Your task to perform on an android device: turn on airplane mode Image 0: 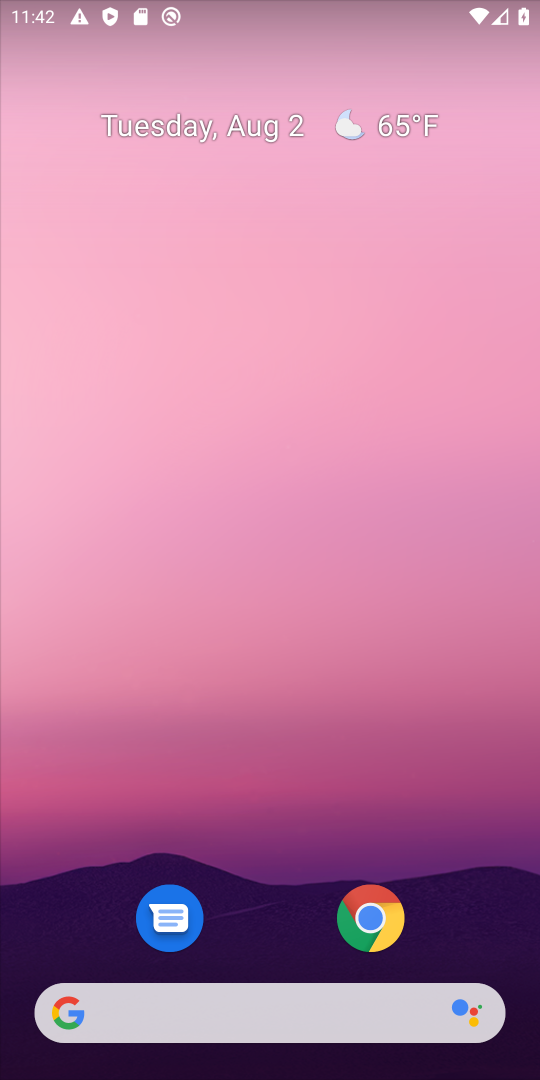
Step 0: drag from (467, 322) to (438, 35)
Your task to perform on an android device: turn on airplane mode Image 1: 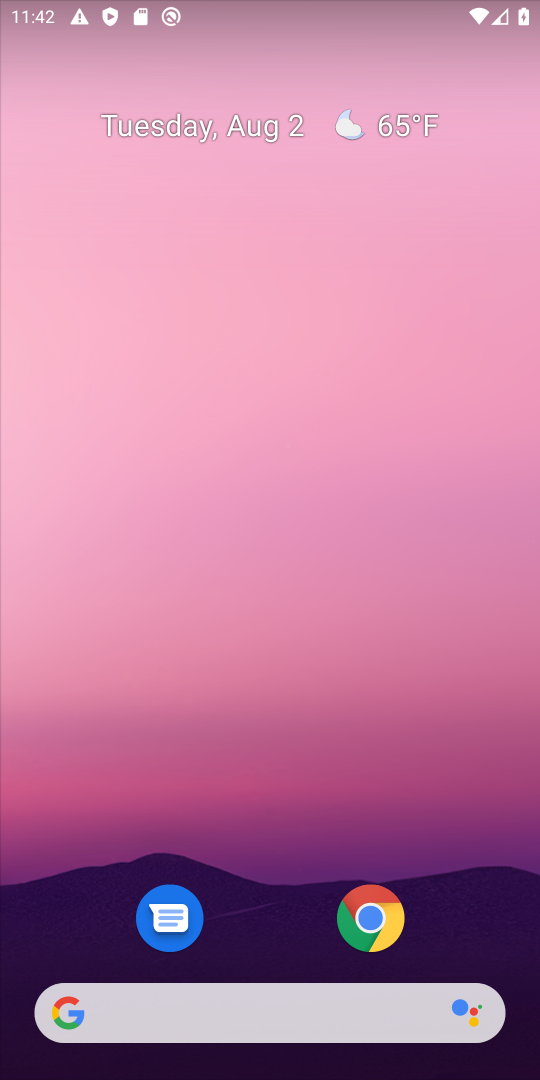
Step 1: drag from (238, 854) to (343, 64)
Your task to perform on an android device: turn on airplane mode Image 2: 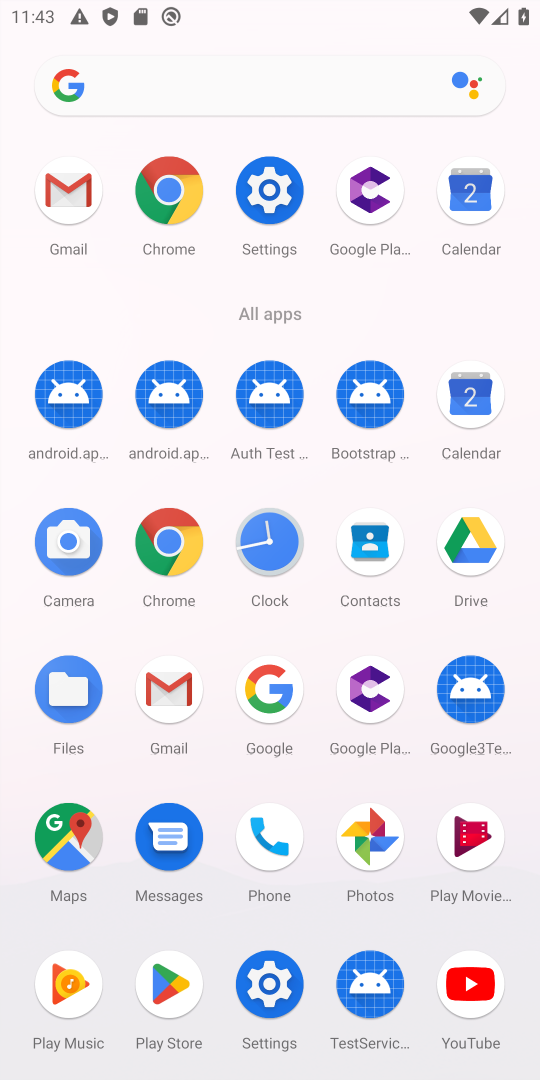
Step 2: click (281, 190)
Your task to perform on an android device: turn on airplane mode Image 3: 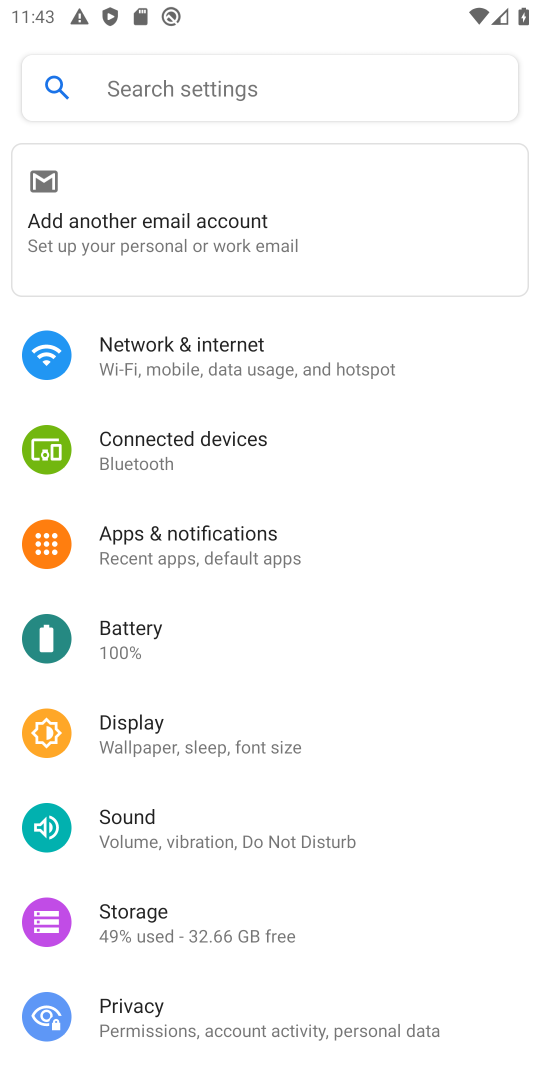
Step 3: click (244, 354)
Your task to perform on an android device: turn on airplane mode Image 4: 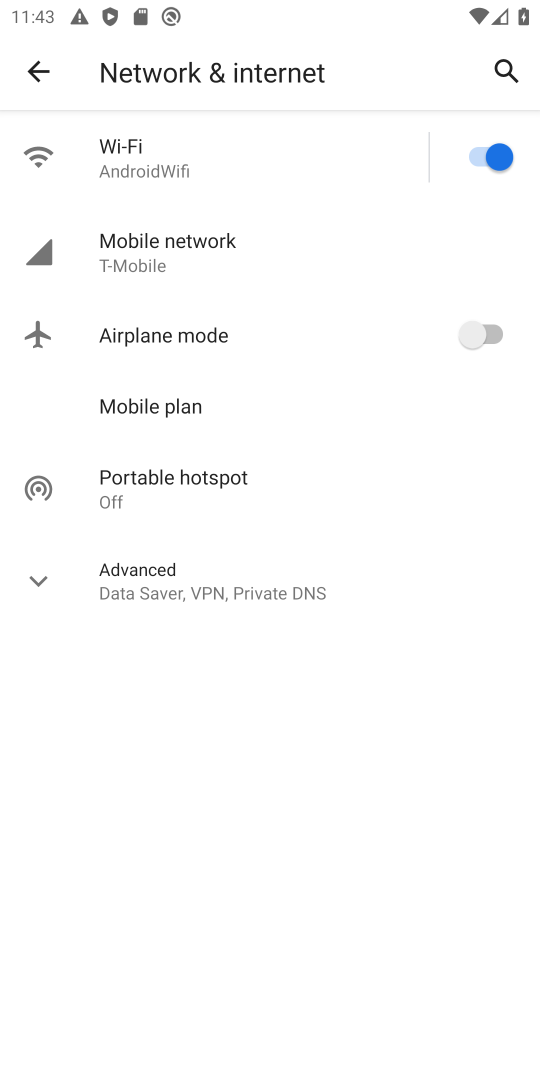
Step 4: click (459, 333)
Your task to perform on an android device: turn on airplane mode Image 5: 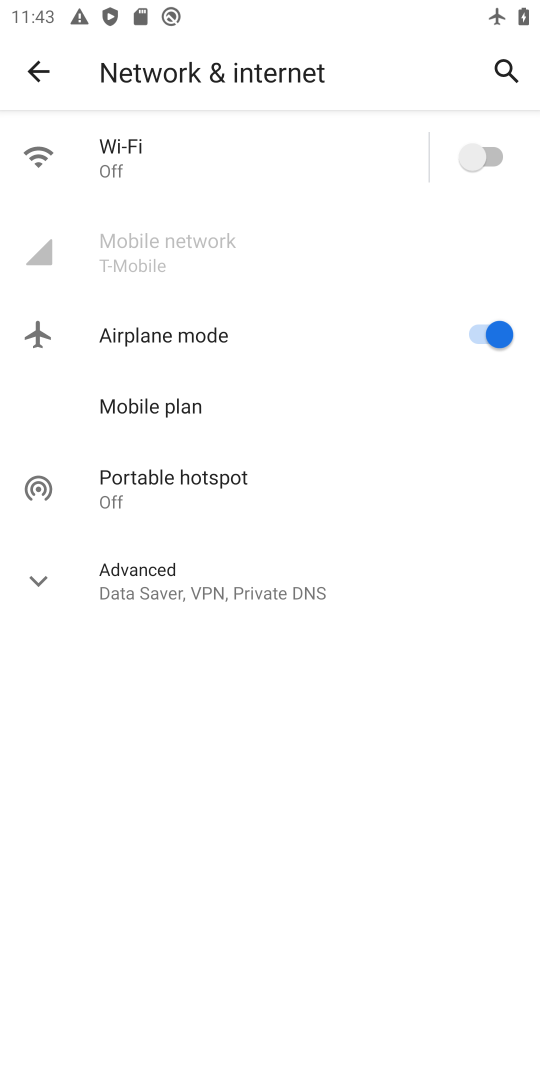
Step 5: task complete